Your task to perform on an android device: set the stopwatch Image 0: 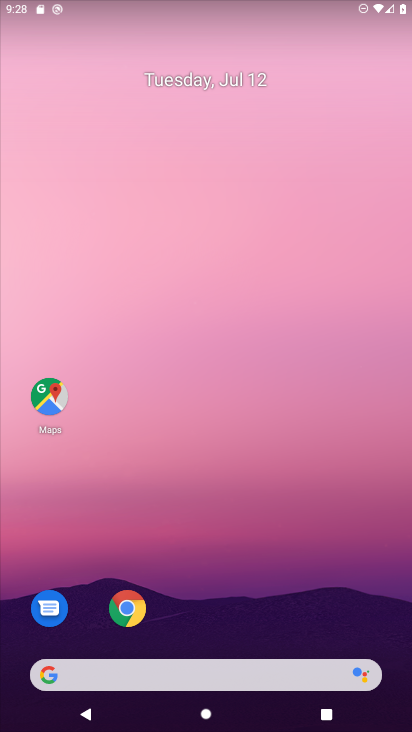
Step 0: drag from (184, 631) to (239, 0)
Your task to perform on an android device: set the stopwatch Image 1: 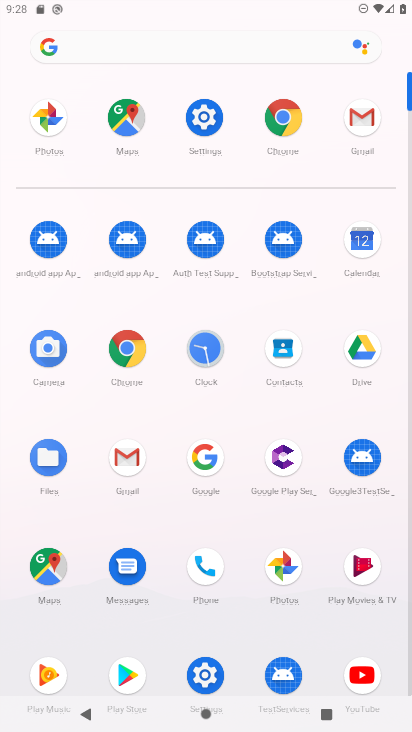
Step 1: click (212, 343)
Your task to perform on an android device: set the stopwatch Image 2: 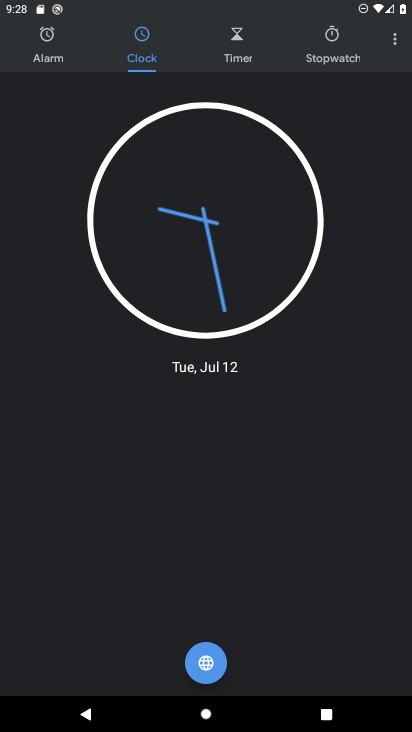
Step 2: click (343, 41)
Your task to perform on an android device: set the stopwatch Image 3: 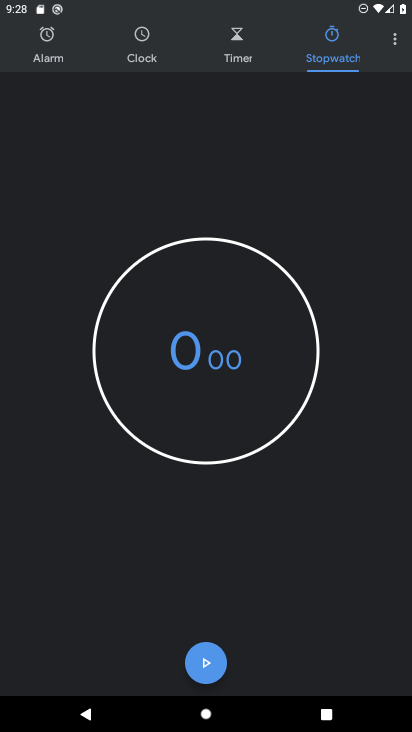
Step 3: click (212, 666)
Your task to perform on an android device: set the stopwatch Image 4: 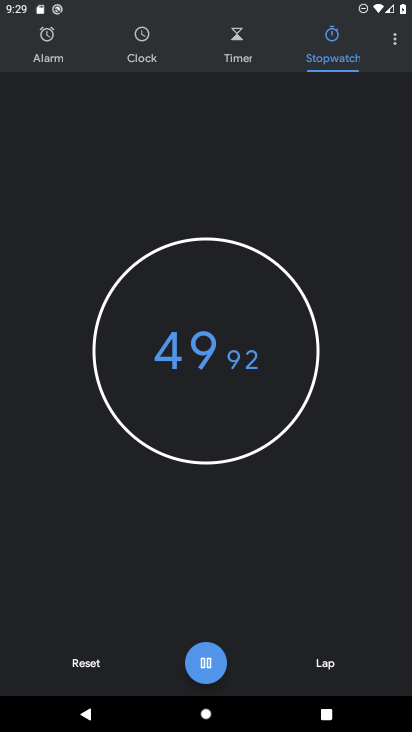
Step 4: task complete